Your task to perform on an android device: turn on bluetooth scan Image 0: 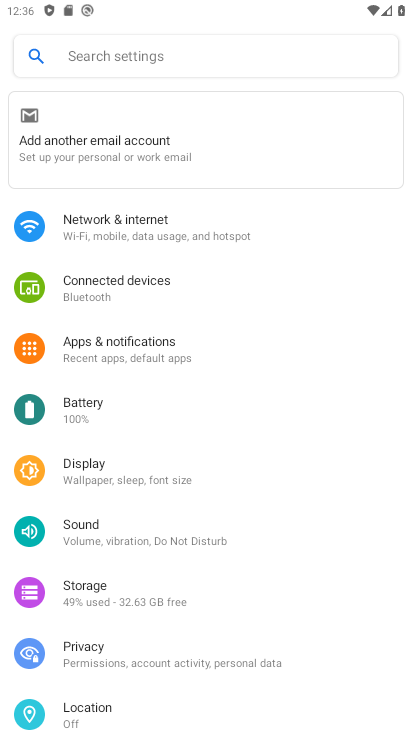
Step 0: click (90, 704)
Your task to perform on an android device: turn on bluetooth scan Image 1: 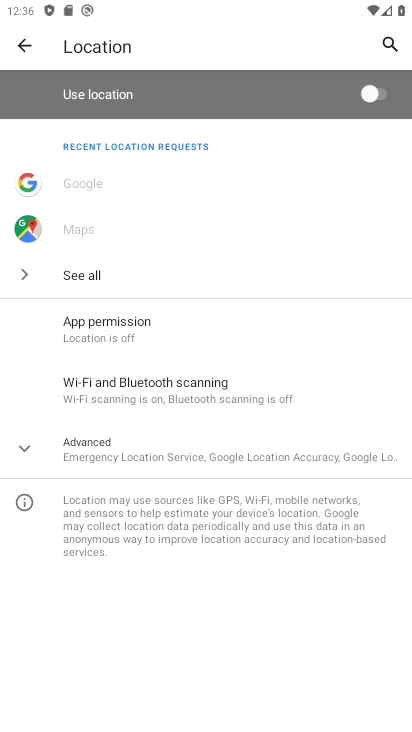
Step 1: click (115, 402)
Your task to perform on an android device: turn on bluetooth scan Image 2: 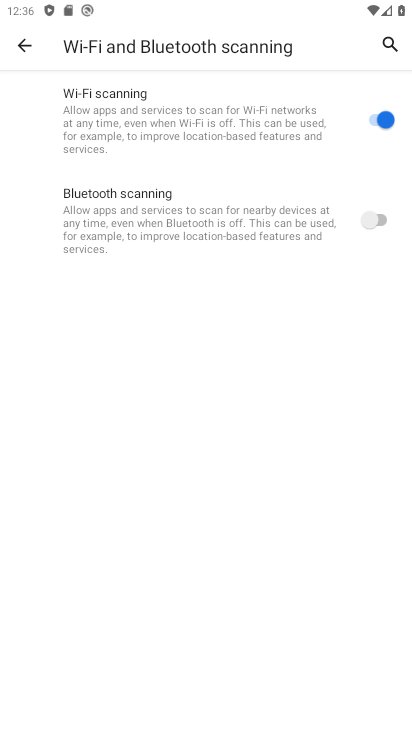
Step 2: click (376, 225)
Your task to perform on an android device: turn on bluetooth scan Image 3: 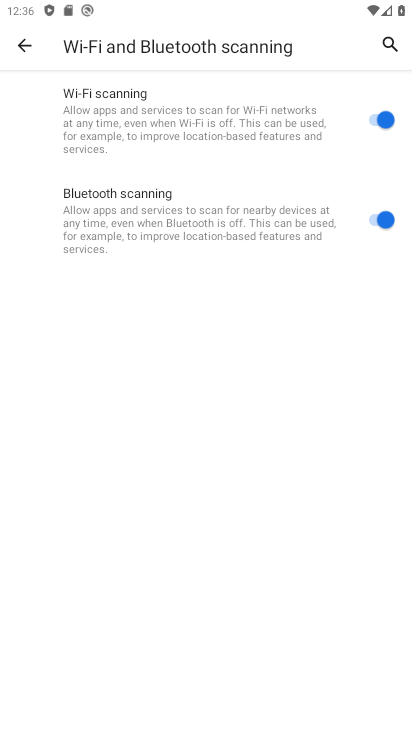
Step 3: task complete